Your task to perform on an android device: Go to Yahoo.com Image 0: 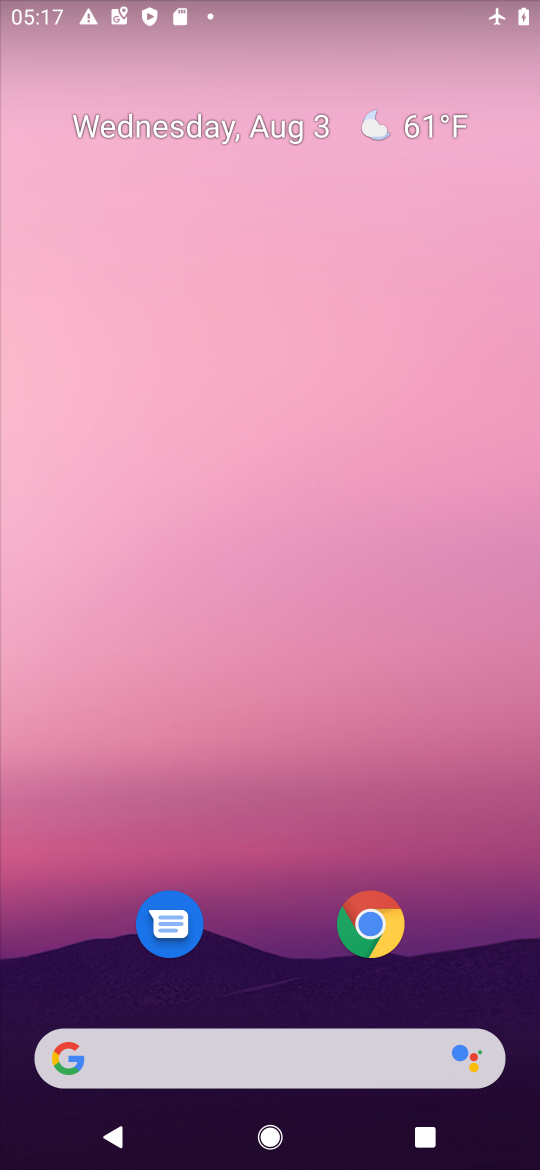
Step 0: click (360, 904)
Your task to perform on an android device: Go to Yahoo.com Image 1: 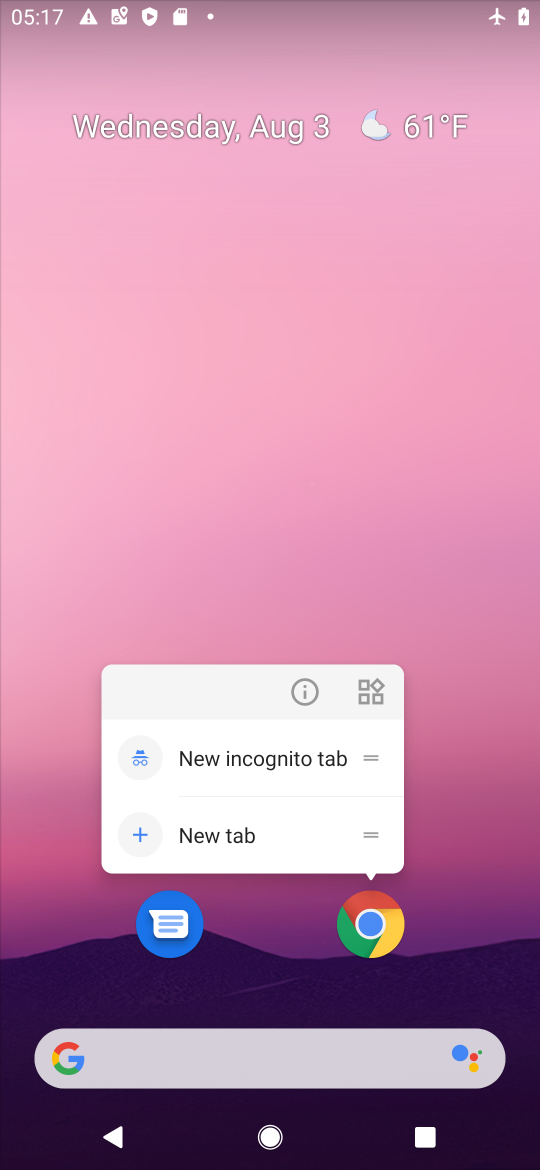
Step 1: click (360, 904)
Your task to perform on an android device: Go to Yahoo.com Image 2: 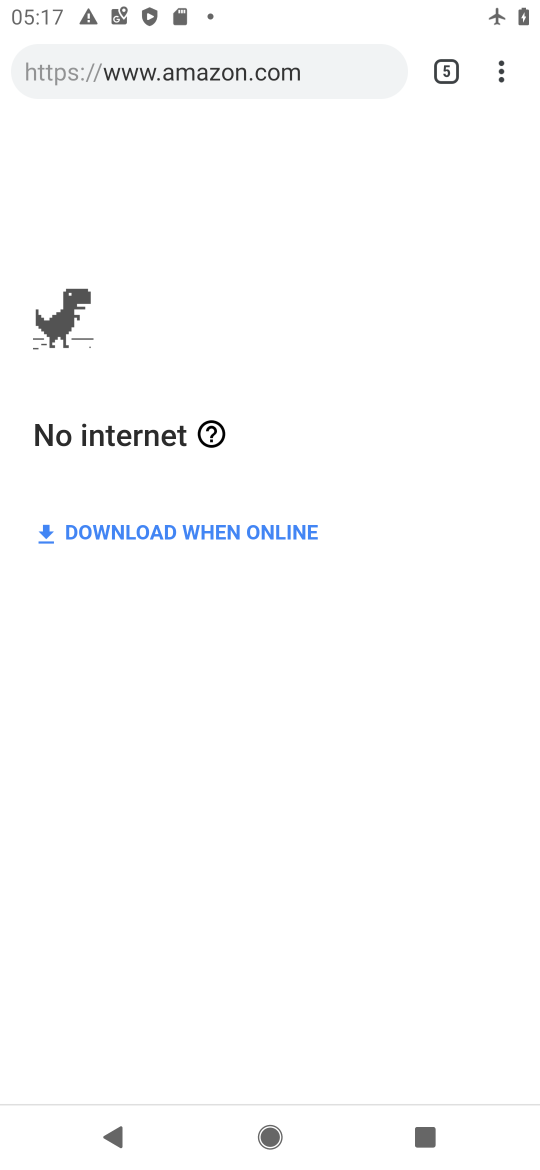
Step 2: click (456, 74)
Your task to perform on an android device: Go to Yahoo.com Image 3: 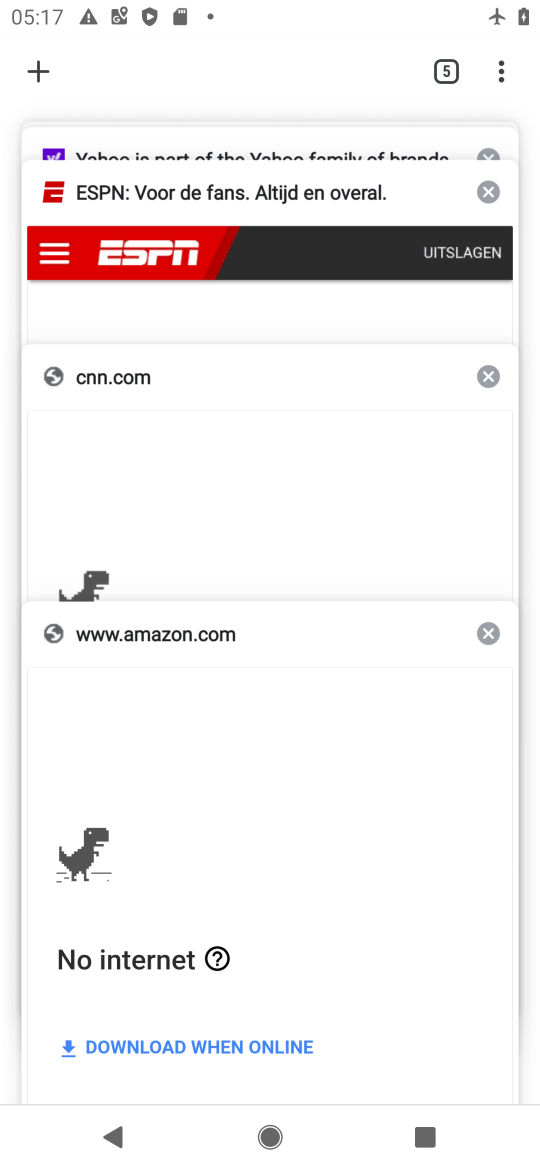
Step 3: click (44, 72)
Your task to perform on an android device: Go to Yahoo.com Image 4: 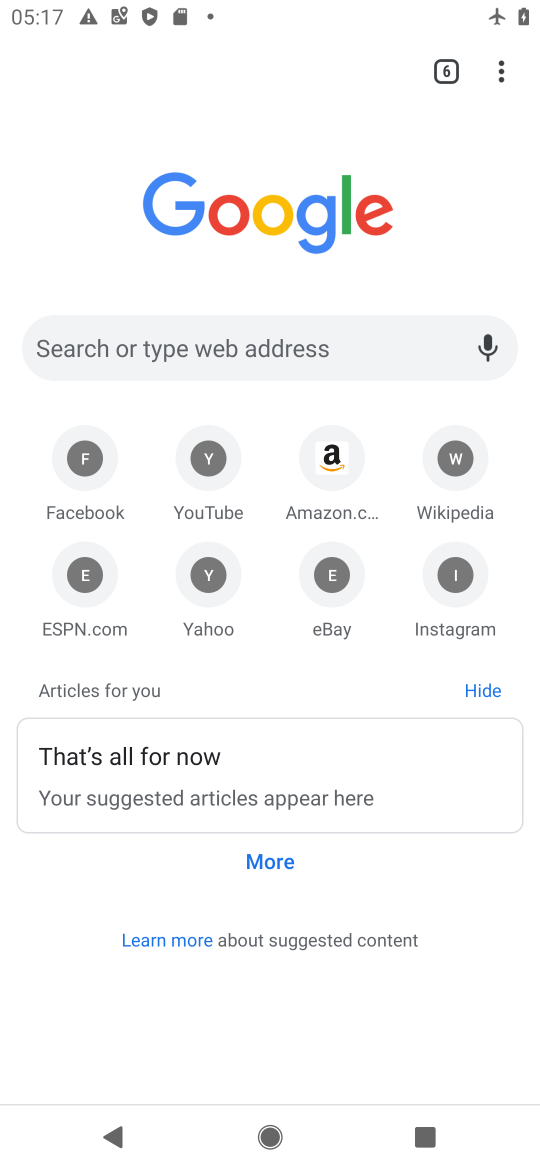
Step 4: click (211, 592)
Your task to perform on an android device: Go to Yahoo.com Image 5: 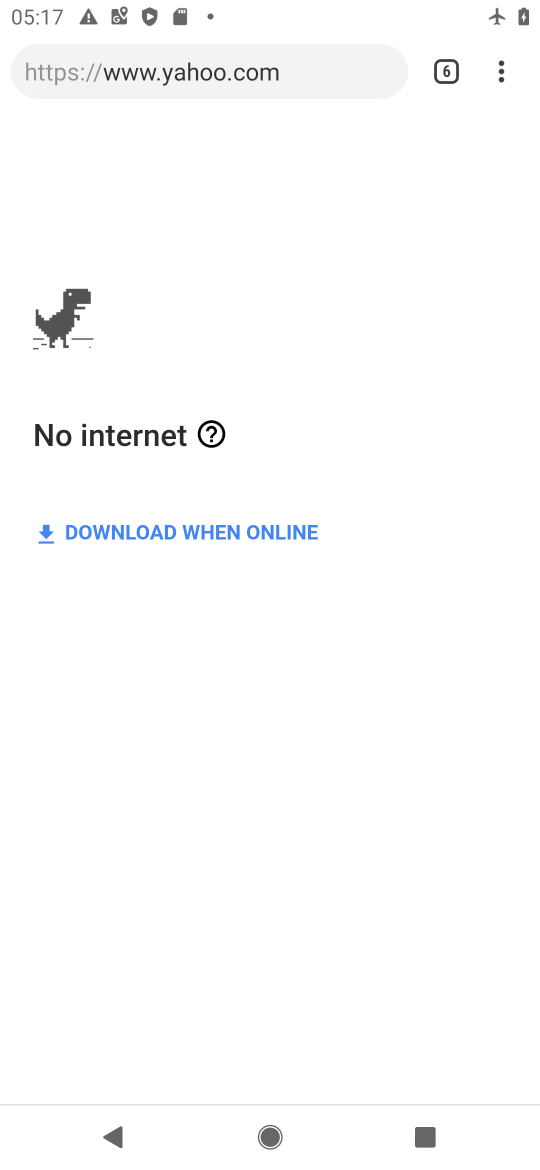
Step 5: task complete